Your task to perform on an android device: Go to Google Image 0: 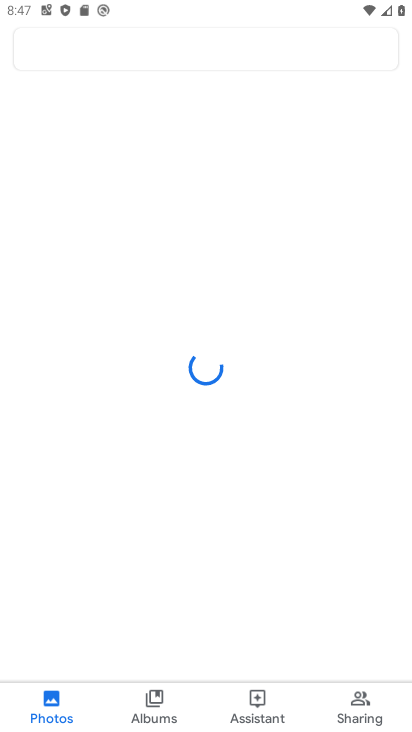
Step 0: press home button
Your task to perform on an android device: Go to Google Image 1: 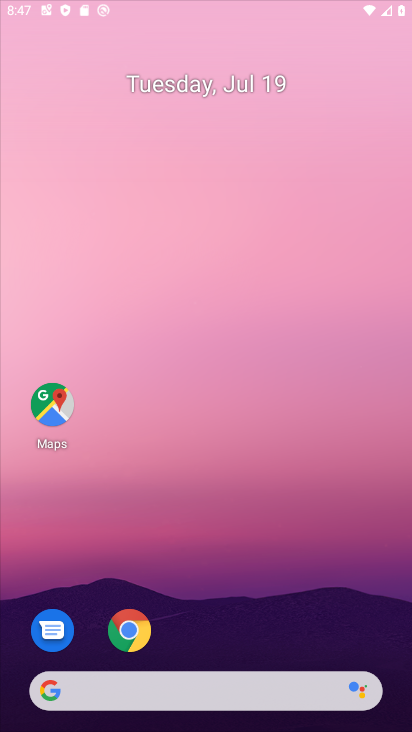
Step 1: drag from (212, 657) to (260, 136)
Your task to perform on an android device: Go to Google Image 2: 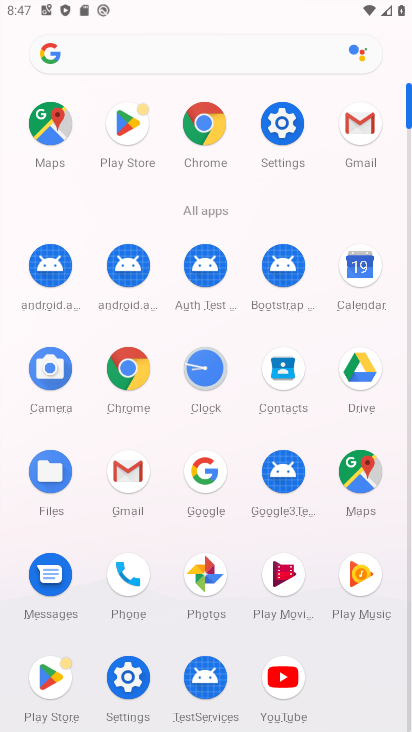
Step 2: click (203, 469)
Your task to perform on an android device: Go to Google Image 3: 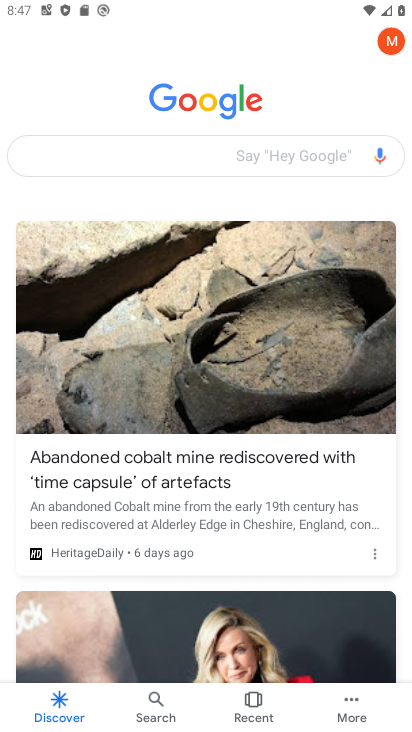
Step 3: task complete